Your task to perform on an android device: open chrome and create a bookmark for the current page Image 0: 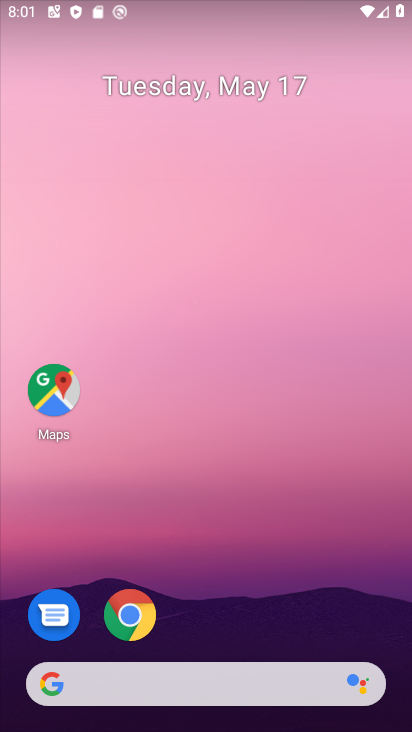
Step 0: drag from (267, 610) to (278, 282)
Your task to perform on an android device: open chrome and create a bookmark for the current page Image 1: 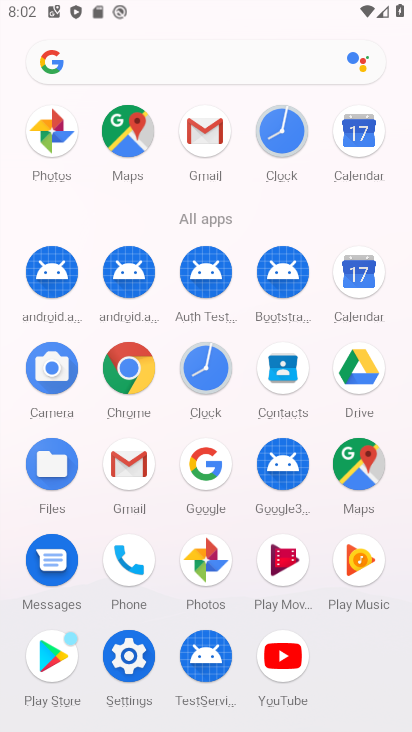
Step 1: click (135, 371)
Your task to perform on an android device: open chrome and create a bookmark for the current page Image 2: 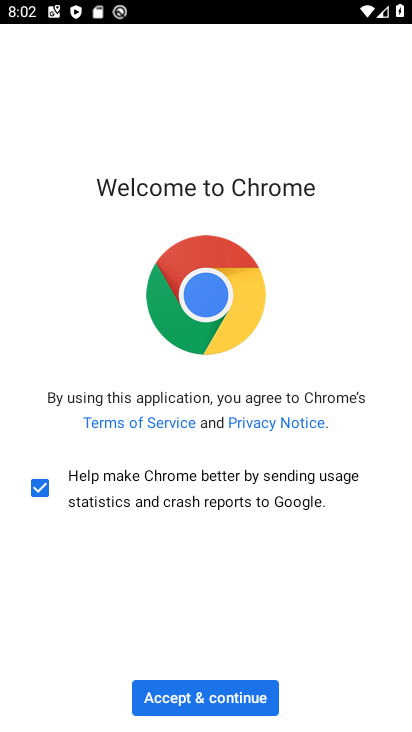
Step 2: click (211, 697)
Your task to perform on an android device: open chrome and create a bookmark for the current page Image 3: 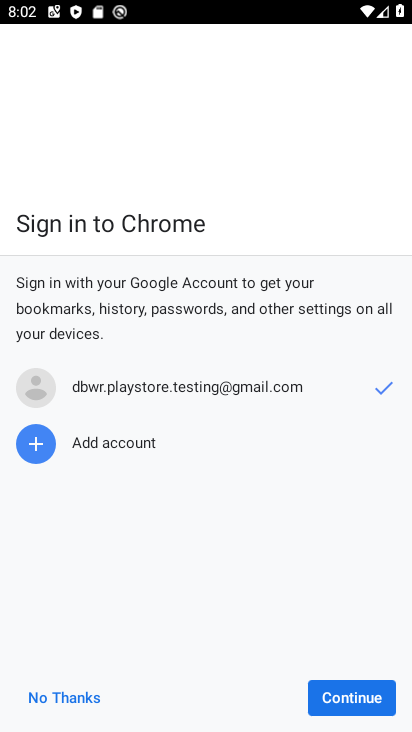
Step 3: click (337, 691)
Your task to perform on an android device: open chrome and create a bookmark for the current page Image 4: 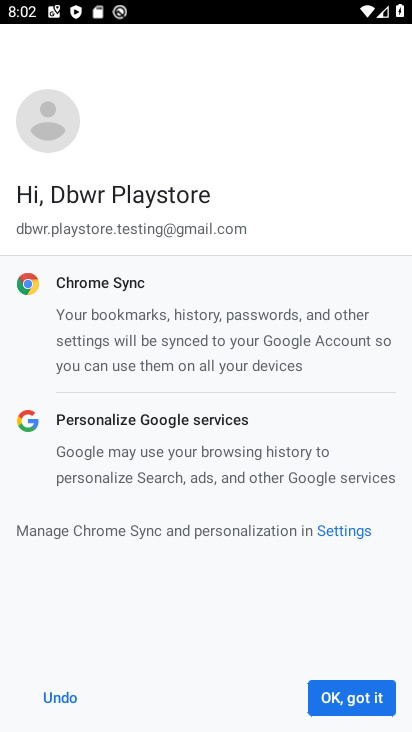
Step 4: click (331, 692)
Your task to perform on an android device: open chrome and create a bookmark for the current page Image 5: 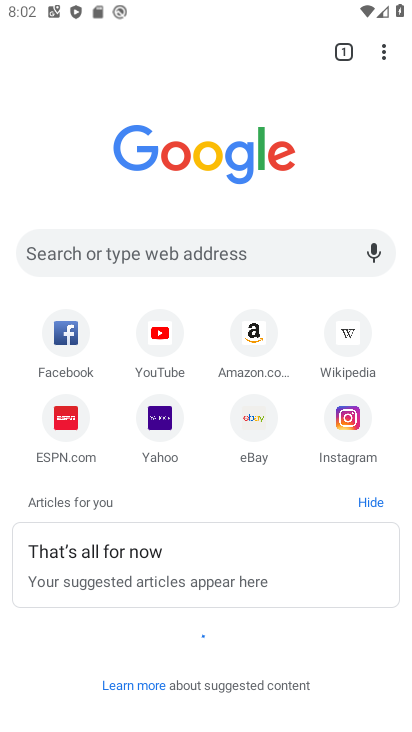
Step 5: click (378, 50)
Your task to perform on an android device: open chrome and create a bookmark for the current page Image 6: 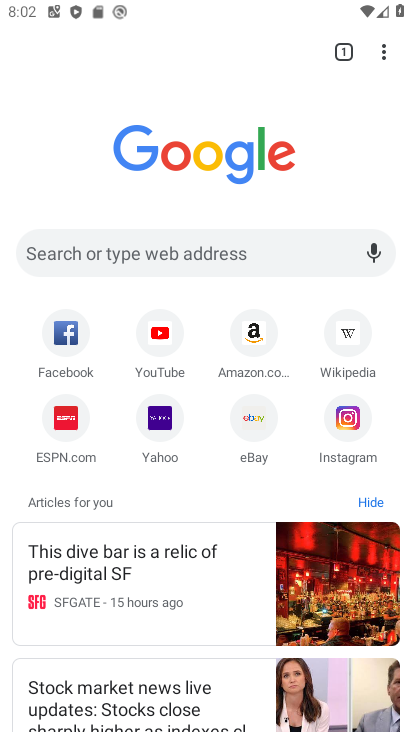
Step 6: click (371, 46)
Your task to perform on an android device: open chrome and create a bookmark for the current page Image 7: 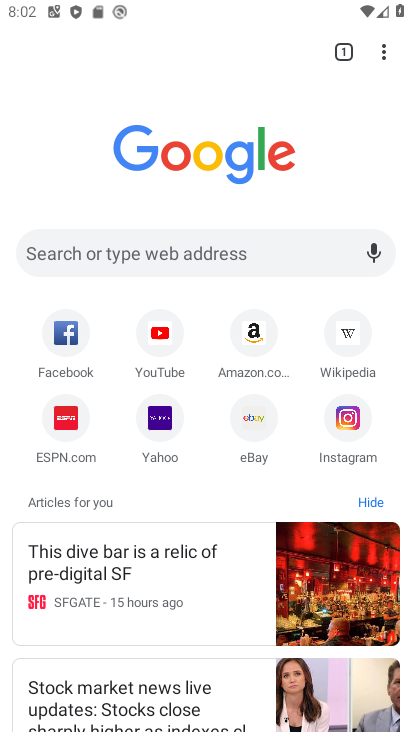
Step 7: click (376, 42)
Your task to perform on an android device: open chrome and create a bookmark for the current page Image 8: 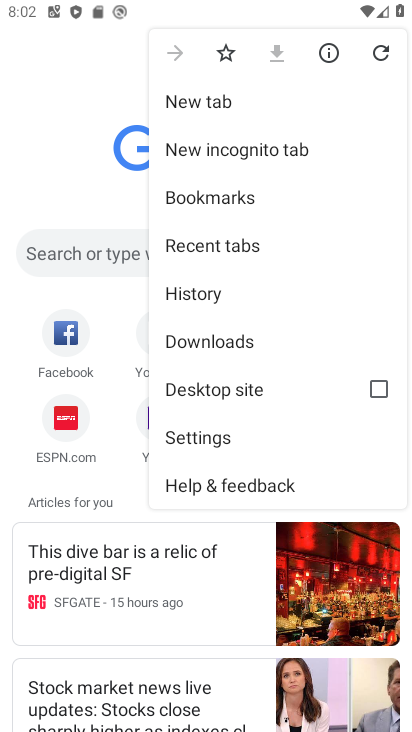
Step 8: click (211, 52)
Your task to perform on an android device: open chrome and create a bookmark for the current page Image 9: 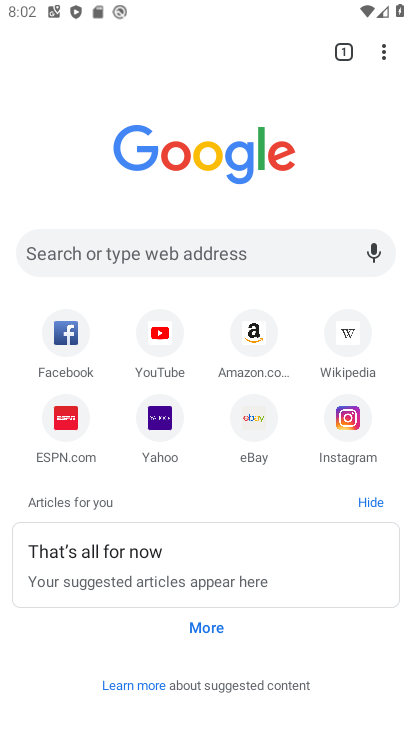
Step 9: click (378, 47)
Your task to perform on an android device: open chrome and create a bookmark for the current page Image 10: 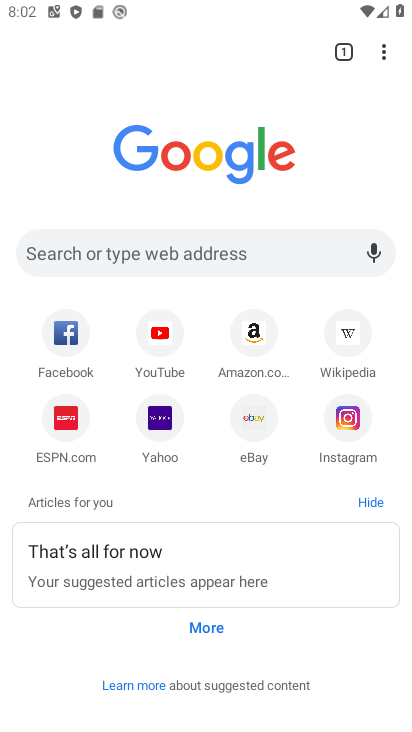
Step 10: click (373, 56)
Your task to perform on an android device: open chrome and create a bookmark for the current page Image 11: 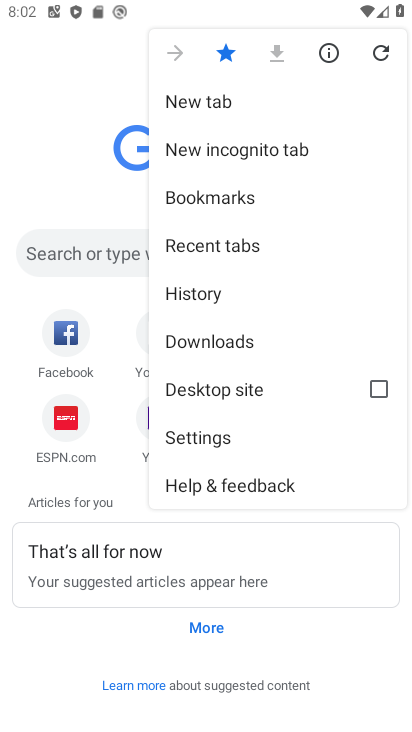
Step 11: task complete